Your task to perform on an android device: Open location settings Image 0: 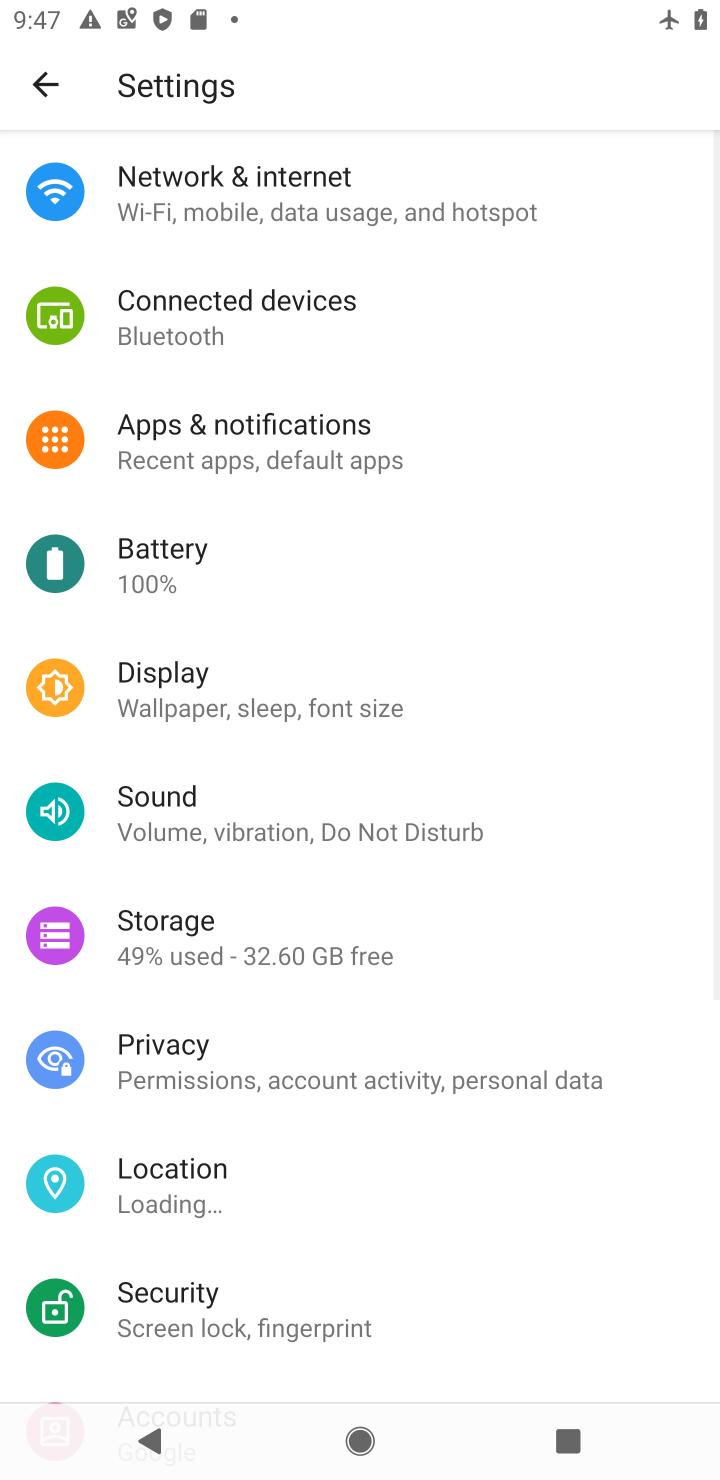
Step 0: press home button
Your task to perform on an android device: Open location settings Image 1: 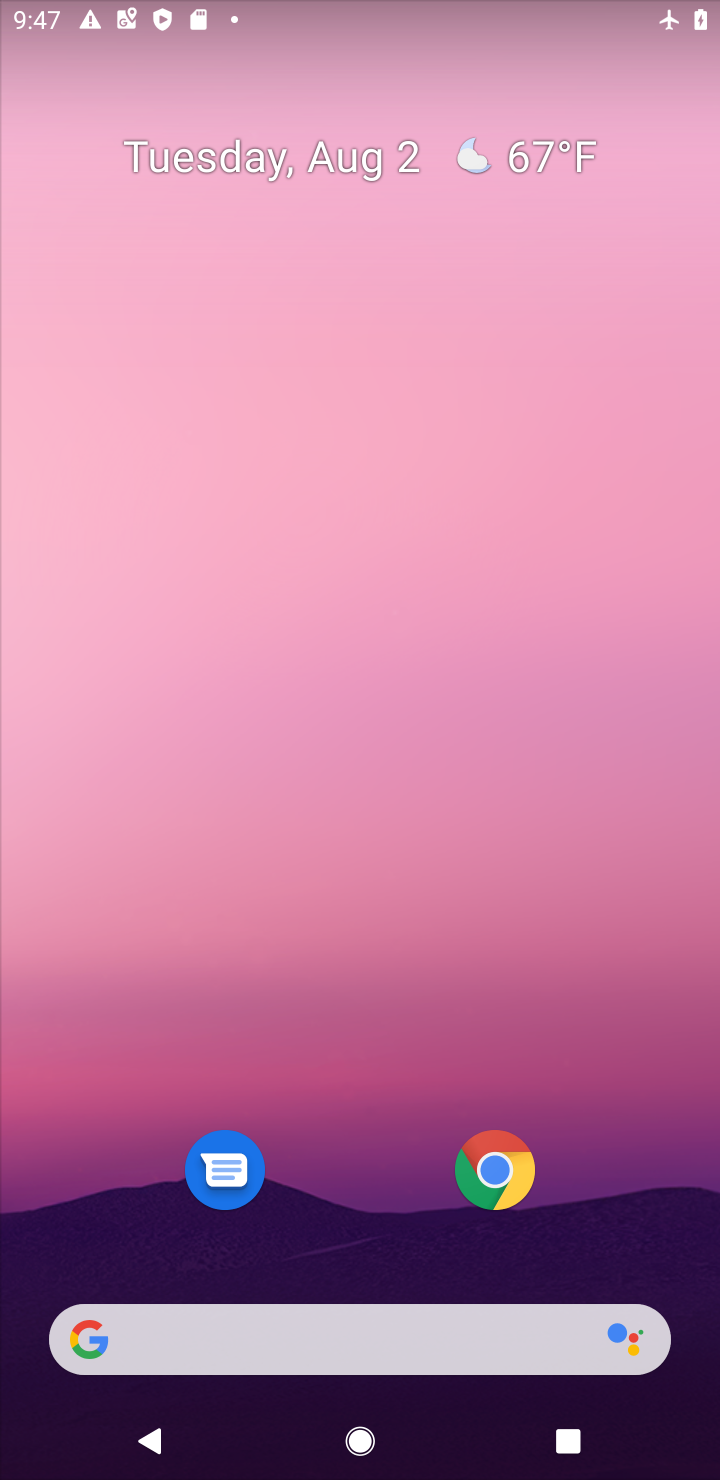
Step 1: drag from (371, 1232) to (403, 56)
Your task to perform on an android device: Open location settings Image 2: 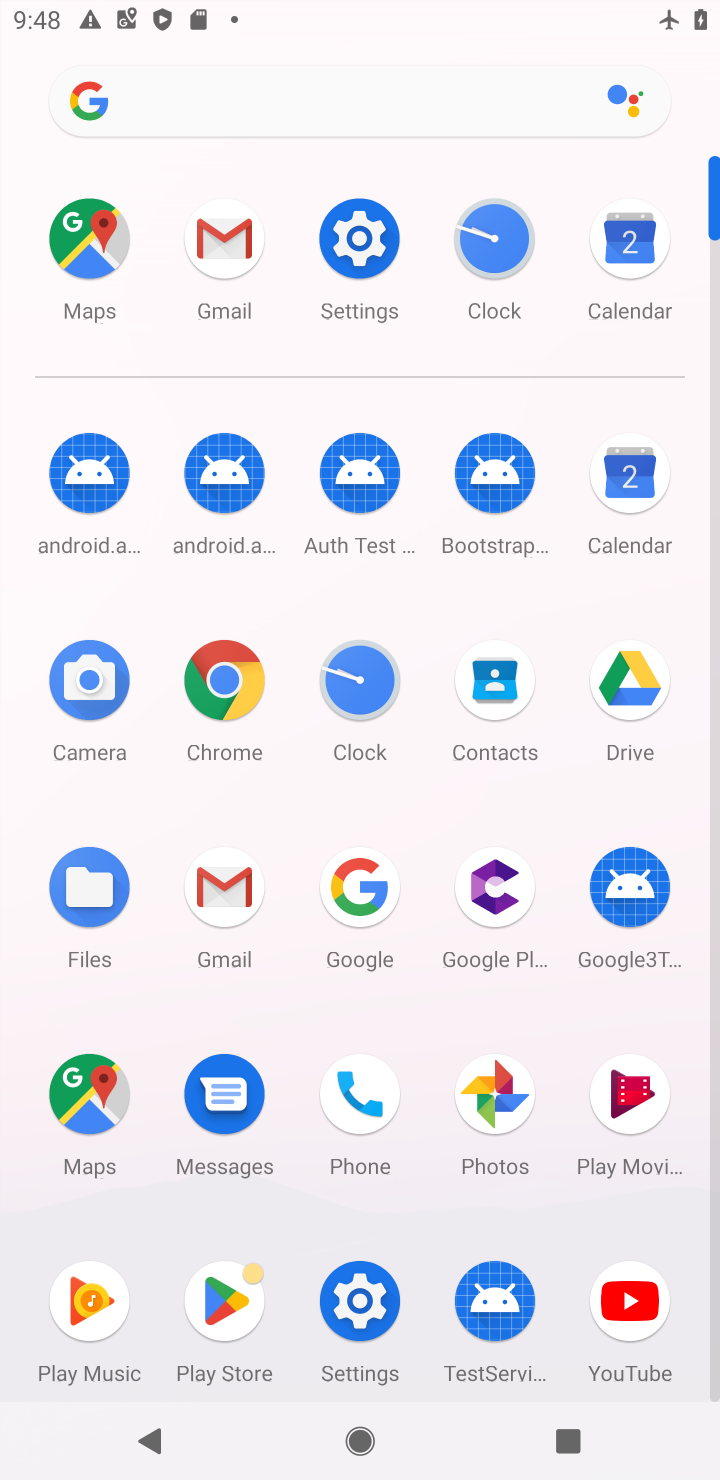
Step 2: click (354, 240)
Your task to perform on an android device: Open location settings Image 3: 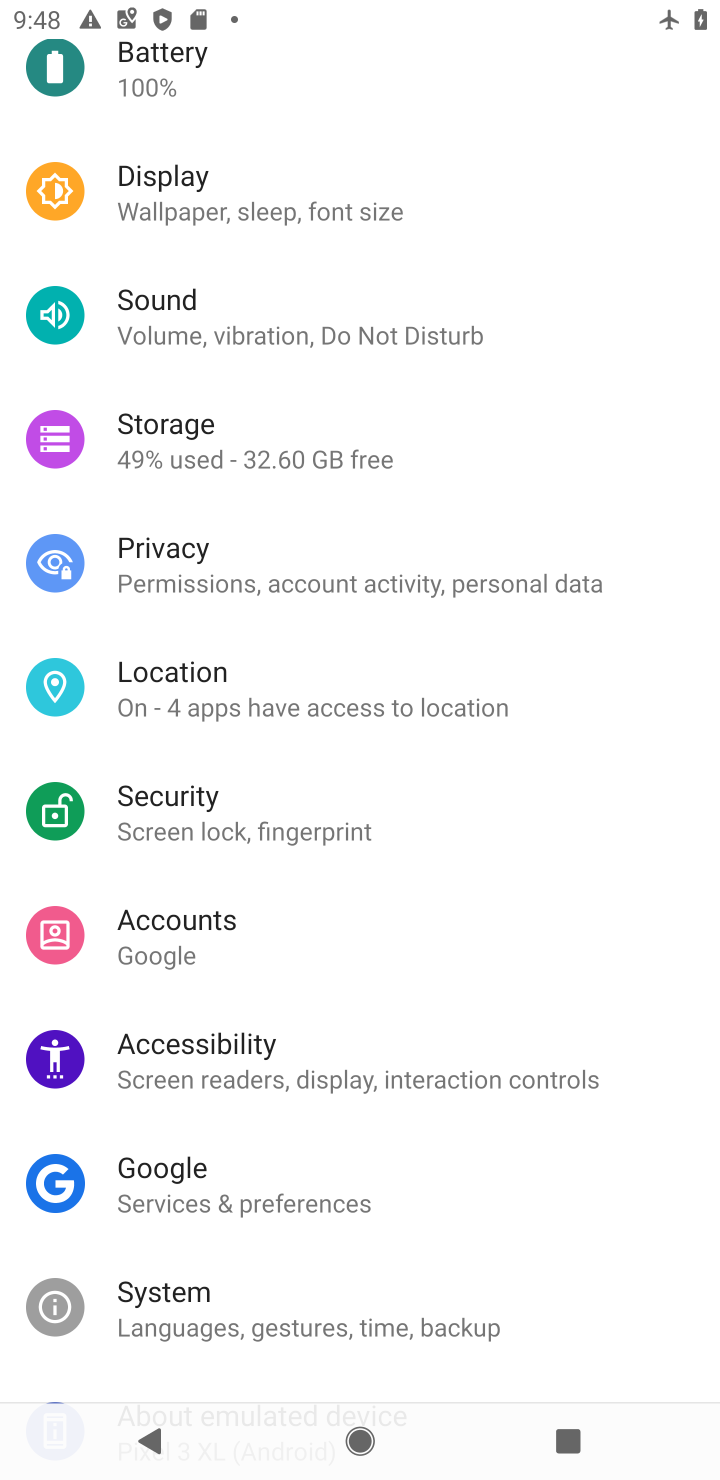
Step 3: click (197, 680)
Your task to perform on an android device: Open location settings Image 4: 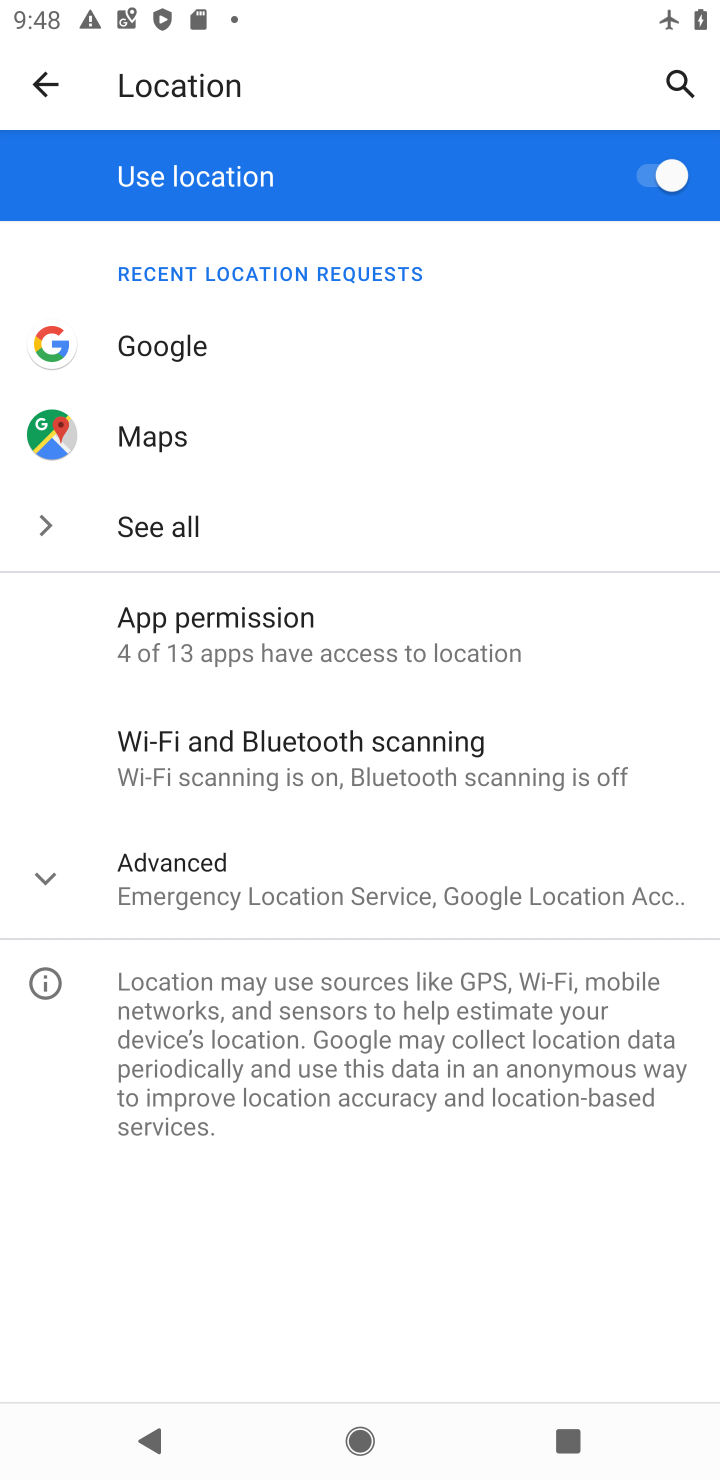
Step 4: task complete